Your task to perform on an android device: Open Google Maps and go to "Timeline" Image 0: 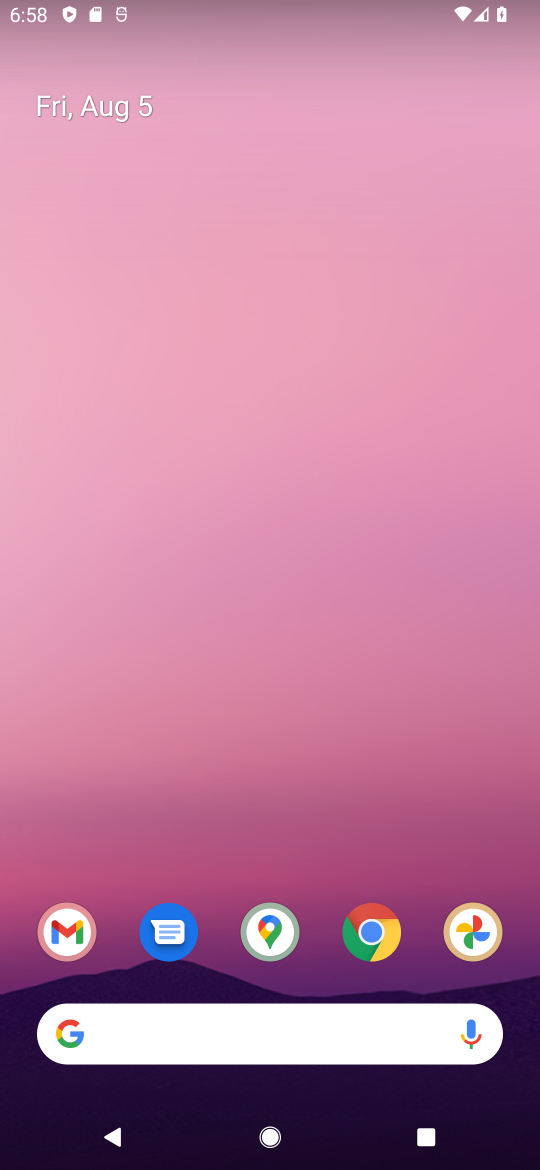
Step 0: drag from (425, 837) to (287, 144)
Your task to perform on an android device: Open Google Maps and go to "Timeline" Image 1: 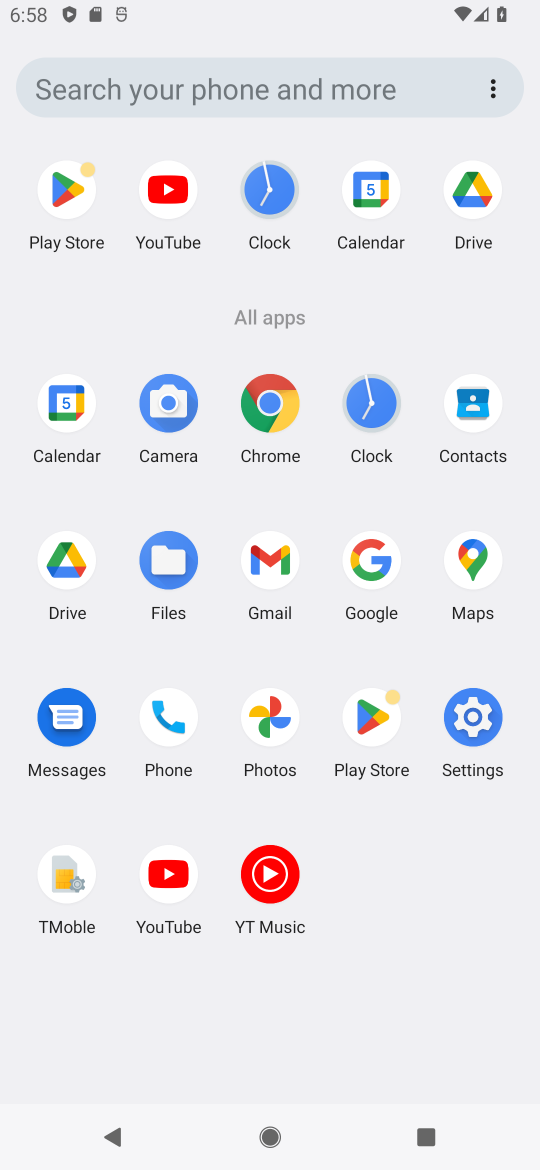
Step 1: click (473, 567)
Your task to perform on an android device: Open Google Maps and go to "Timeline" Image 2: 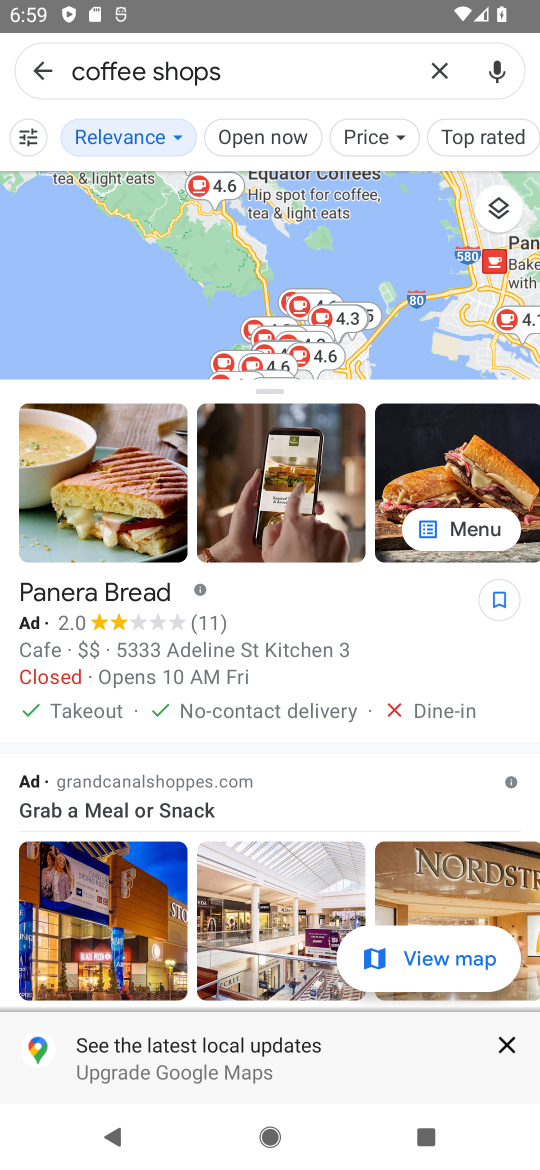
Step 2: click (38, 71)
Your task to perform on an android device: Open Google Maps and go to "Timeline" Image 3: 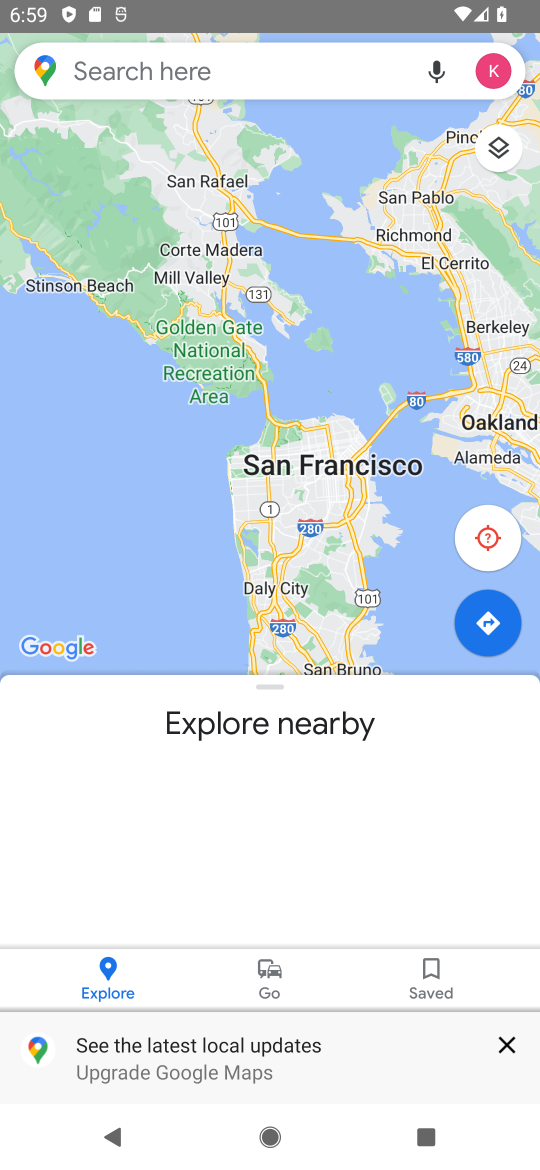
Step 3: click (485, 61)
Your task to perform on an android device: Open Google Maps and go to "Timeline" Image 4: 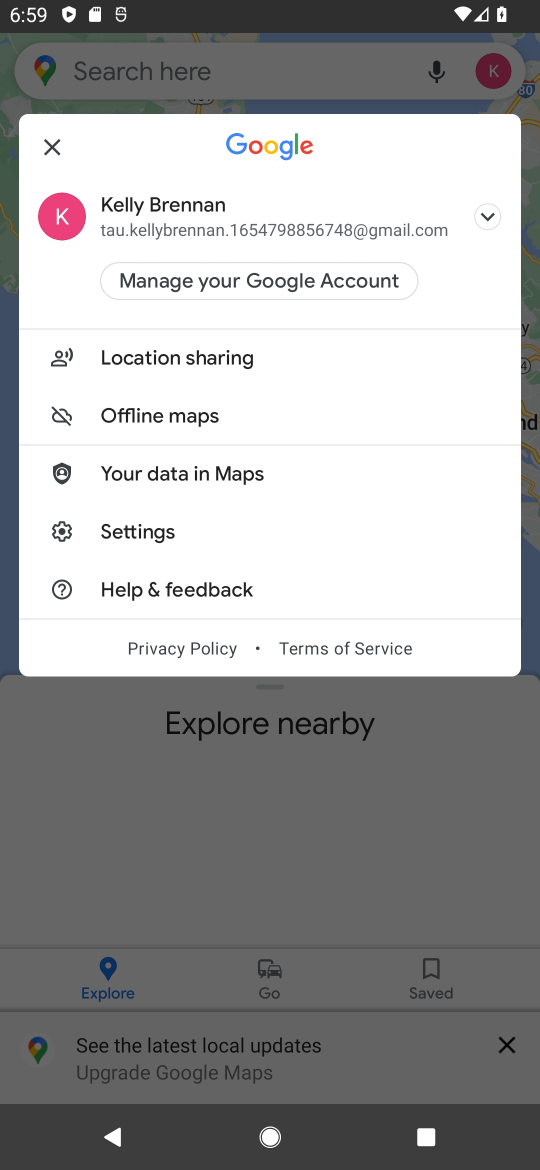
Step 4: click (221, 832)
Your task to perform on an android device: Open Google Maps and go to "Timeline" Image 5: 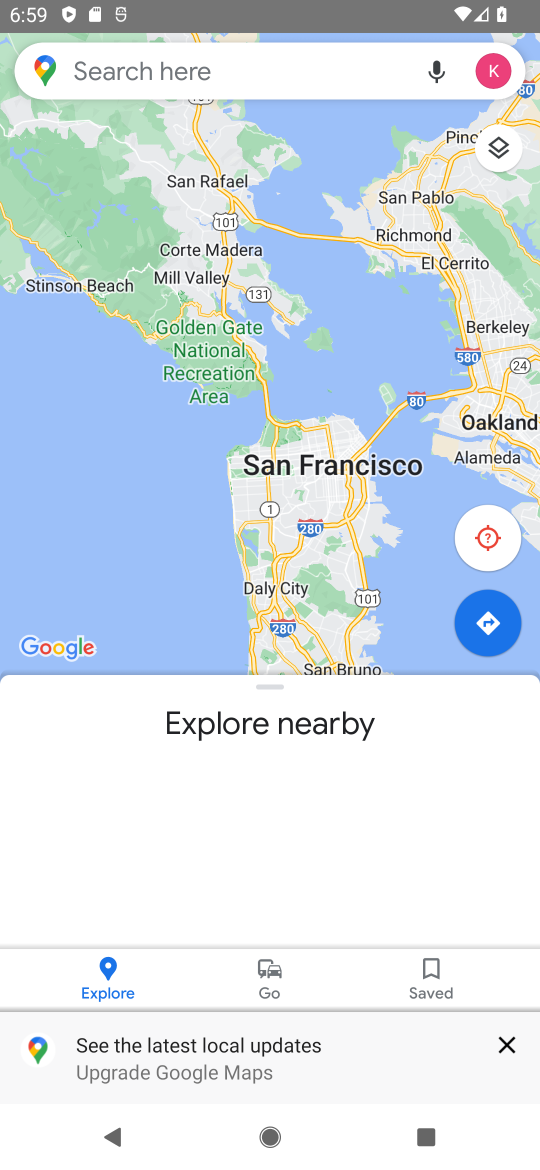
Step 5: task complete